Your task to perform on an android device: Find coffee shops on Maps Image 0: 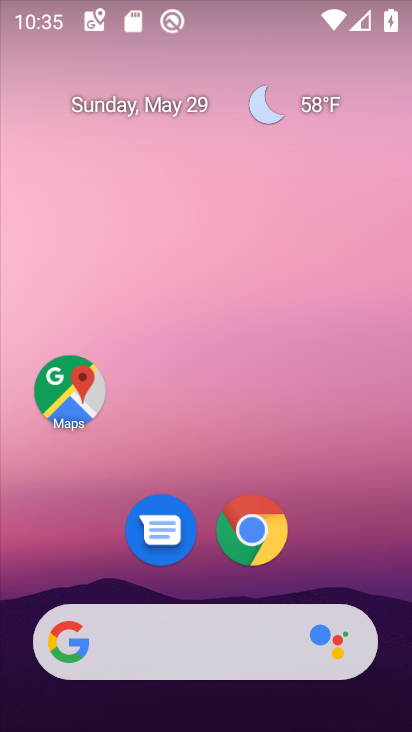
Step 0: drag from (198, 665) to (215, 375)
Your task to perform on an android device: Find coffee shops on Maps Image 1: 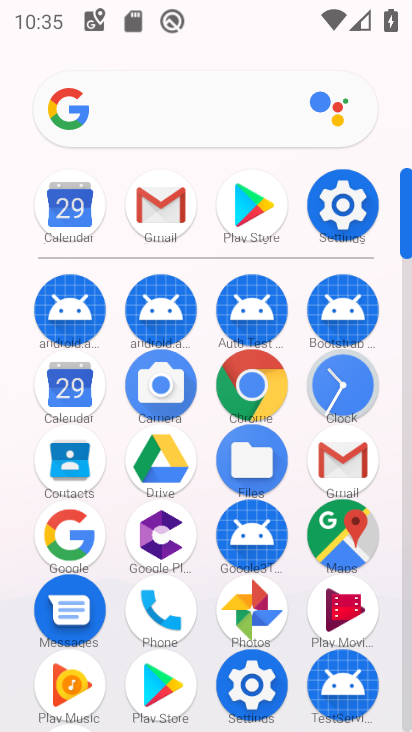
Step 1: click (324, 535)
Your task to perform on an android device: Find coffee shops on Maps Image 2: 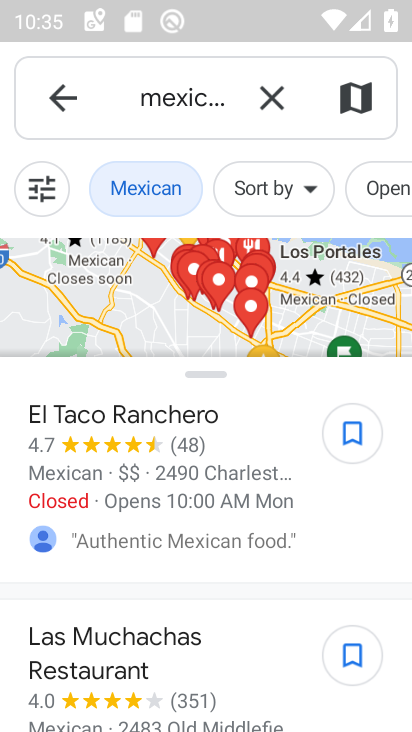
Step 2: click (267, 100)
Your task to perform on an android device: Find coffee shops on Maps Image 3: 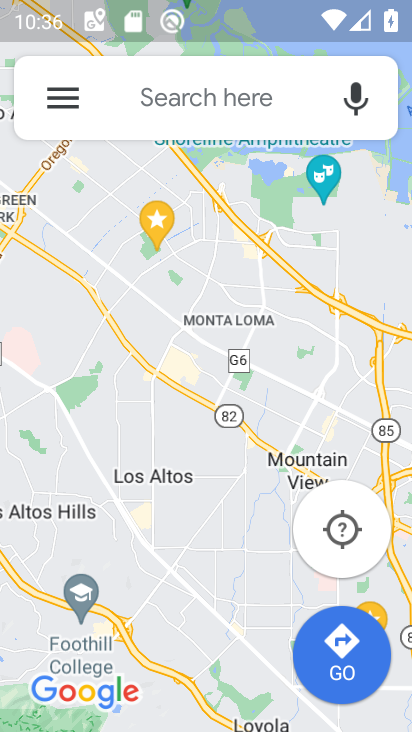
Step 3: click (197, 82)
Your task to perform on an android device: Find coffee shops on Maps Image 4: 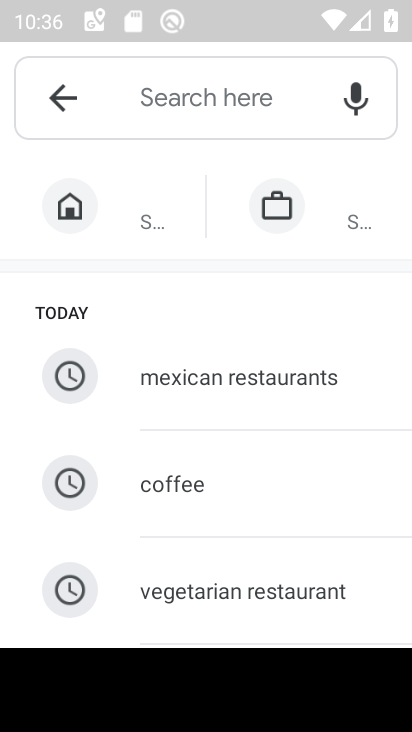
Step 4: type "coffee shops"
Your task to perform on an android device: Find coffee shops on Maps Image 5: 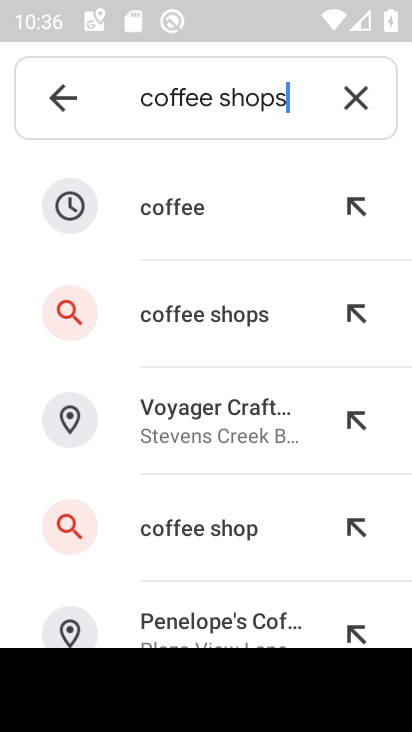
Step 5: click (182, 323)
Your task to perform on an android device: Find coffee shops on Maps Image 6: 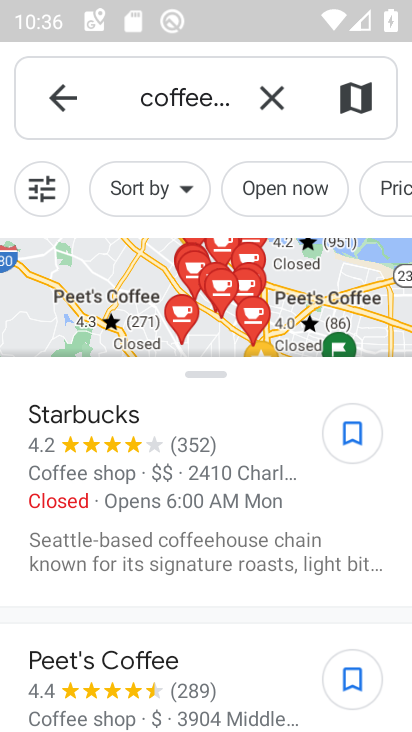
Step 6: task complete